Your task to perform on an android device: Open Youtube and go to "Your channel" Image 0: 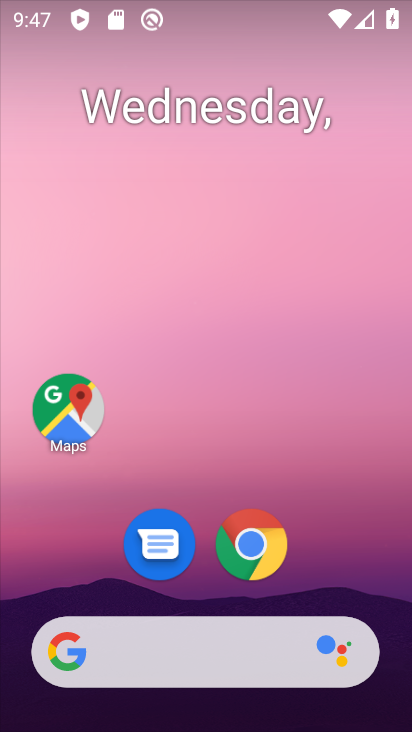
Step 0: drag from (198, 721) to (199, 146)
Your task to perform on an android device: Open Youtube and go to "Your channel" Image 1: 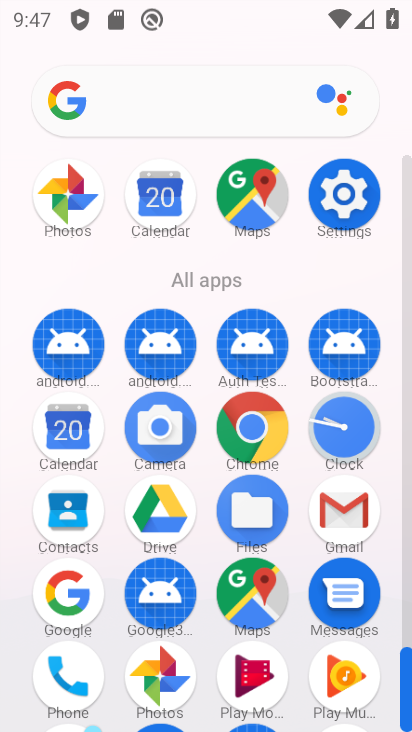
Step 1: drag from (204, 594) to (207, 182)
Your task to perform on an android device: Open Youtube and go to "Your channel" Image 2: 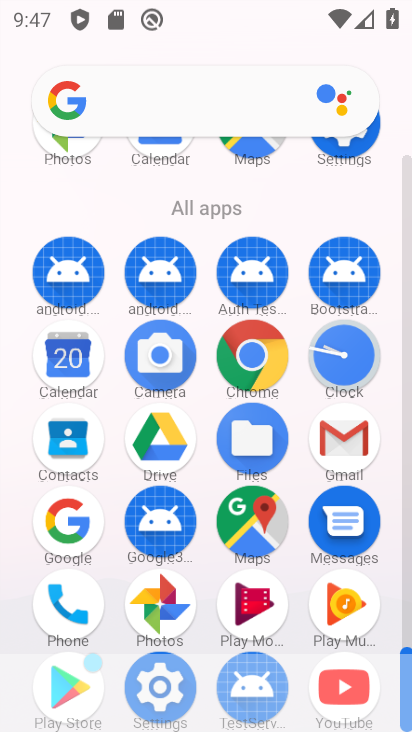
Step 2: click (345, 684)
Your task to perform on an android device: Open Youtube and go to "Your channel" Image 3: 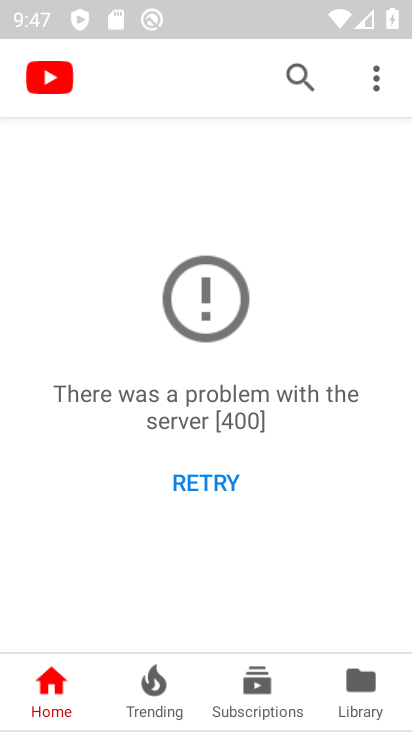
Step 3: click (355, 686)
Your task to perform on an android device: Open Youtube and go to "Your channel" Image 4: 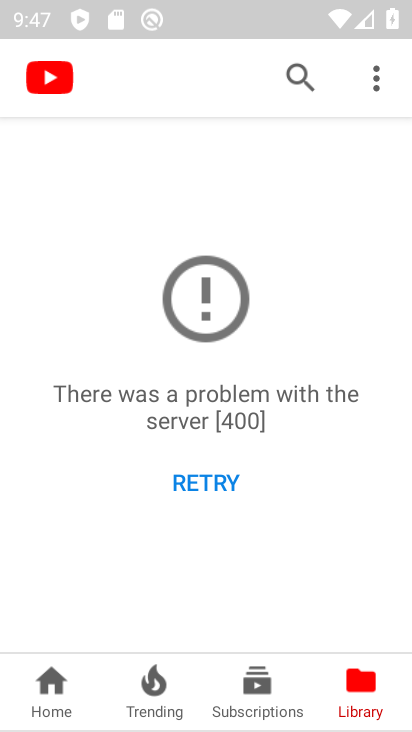
Step 4: task complete